Your task to perform on an android device: turn off notifications settings in the gmail app Image 0: 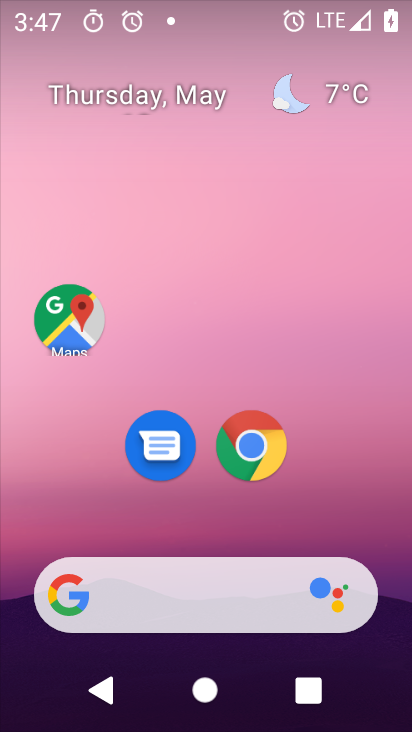
Step 0: drag from (364, 532) to (370, 2)
Your task to perform on an android device: turn off notifications settings in the gmail app Image 1: 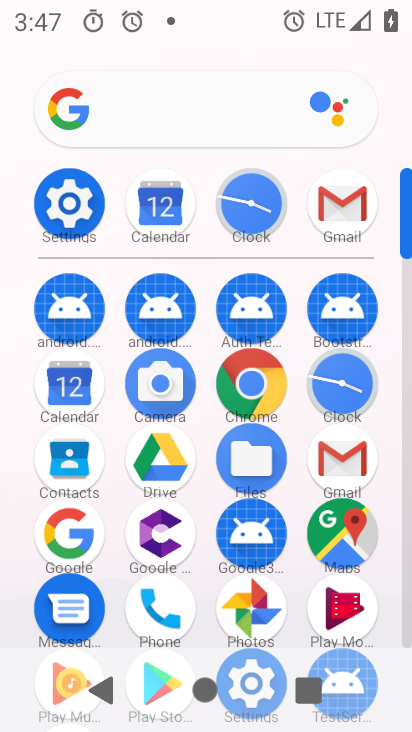
Step 1: click (349, 203)
Your task to perform on an android device: turn off notifications settings in the gmail app Image 2: 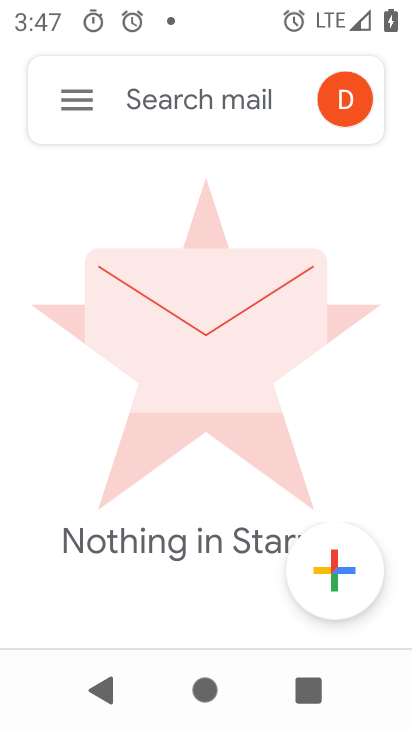
Step 2: click (69, 98)
Your task to perform on an android device: turn off notifications settings in the gmail app Image 3: 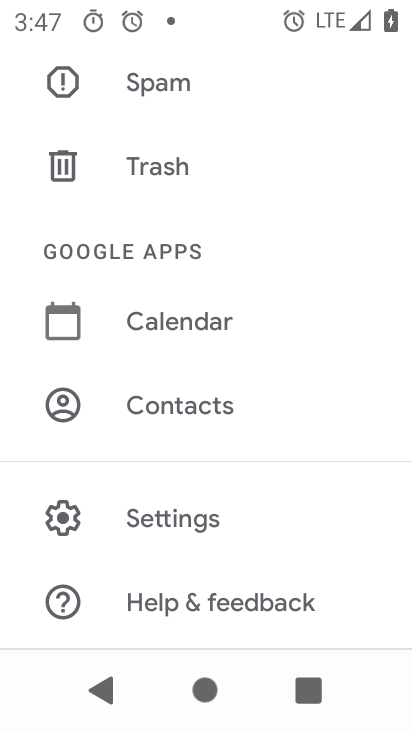
Step 3: click (117, 513)
Your task to perform on an android device: turn off notifications settings in the gmail app Image 4: 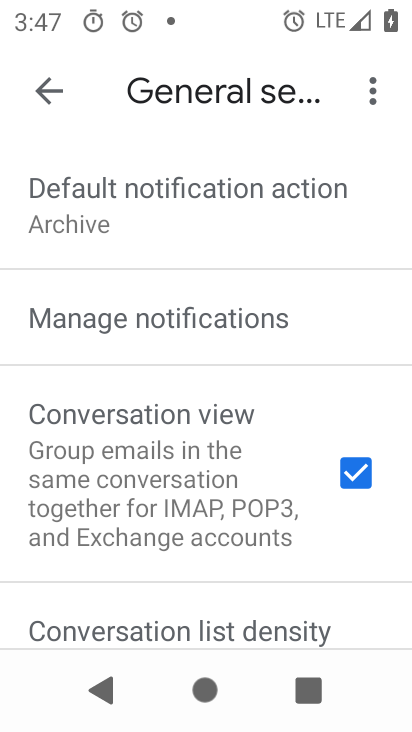
Step 4: click (140, 331)
Your task to perform on an android device: turn off notifications settings in the gmail app Image 5: 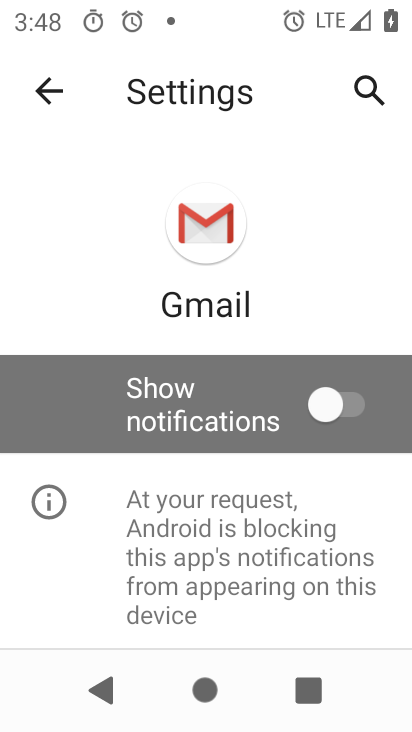
Step 5: task complete